Your task to perform on an android device: Go to accessibility settings Image 0: 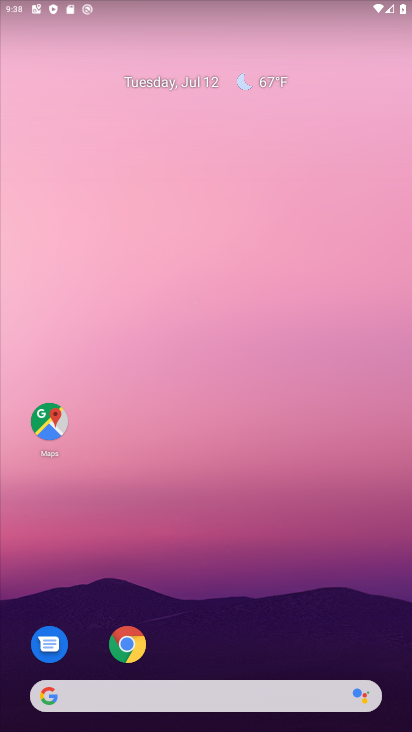
Step 0: drag from (208, 677) to (316, 196)
Your task to perform on an android device: Go to accessibility settings Image 1: 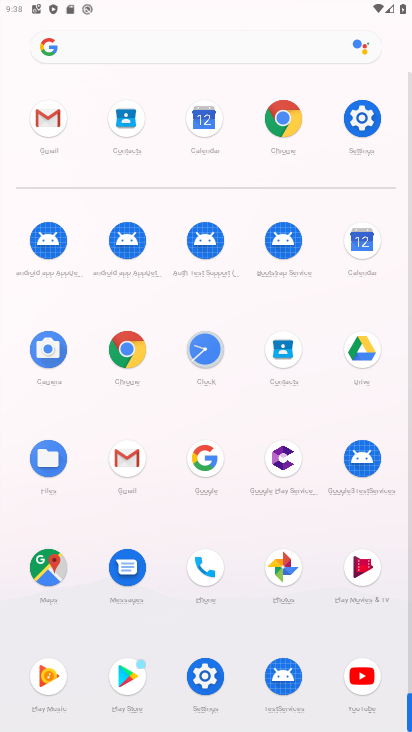
Step 1: click (359, 105)
Your task to perform on an android device: Go to accessibility settings Image 2: 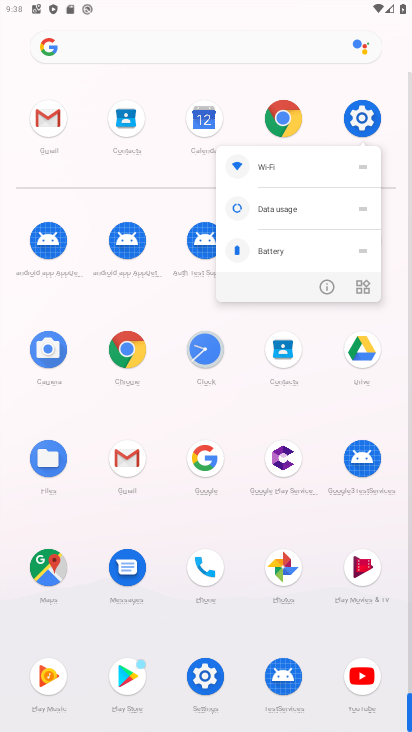
Step 2: click (325, 281)
Your task to perform on an android device: Go to accessibility settings Image 3: 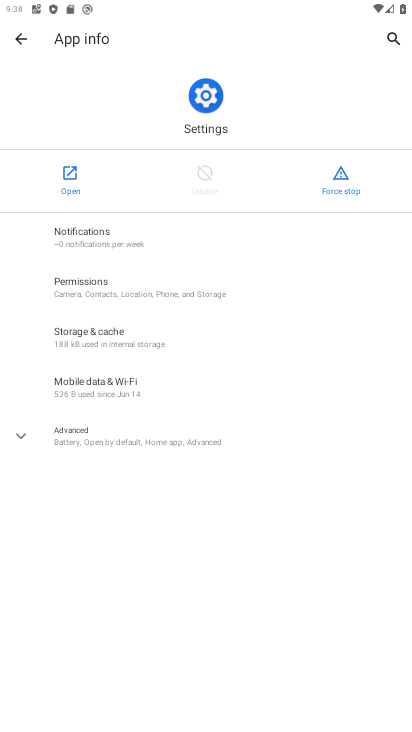
Step 3: click (59, 155)
Your task to perform on an android device: Go to accessibility settings Image 4: 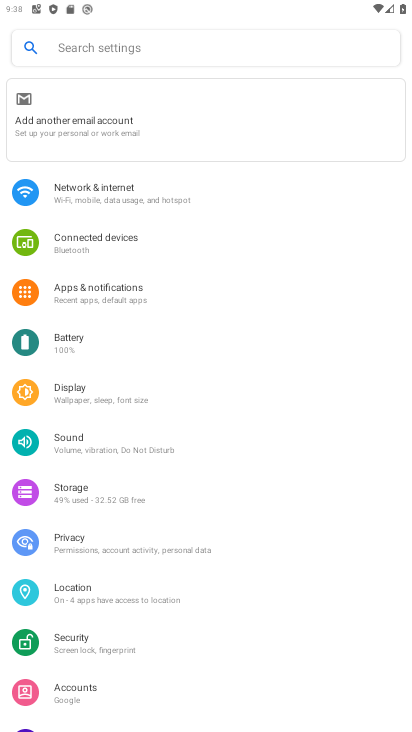
Step 4: drag from (156, 507) to (193, 120)
Your task to perform on an android device: Go to accessibility settings Image 5: 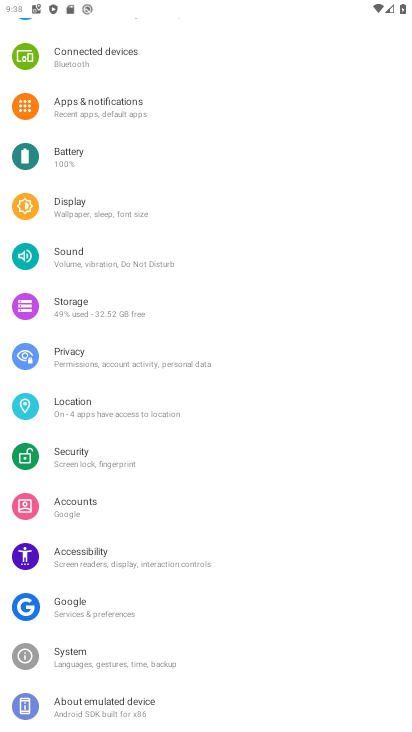
Step 5: click (113, 560)
Your task to perform on an android device: Go to accessibility settings Image 6: 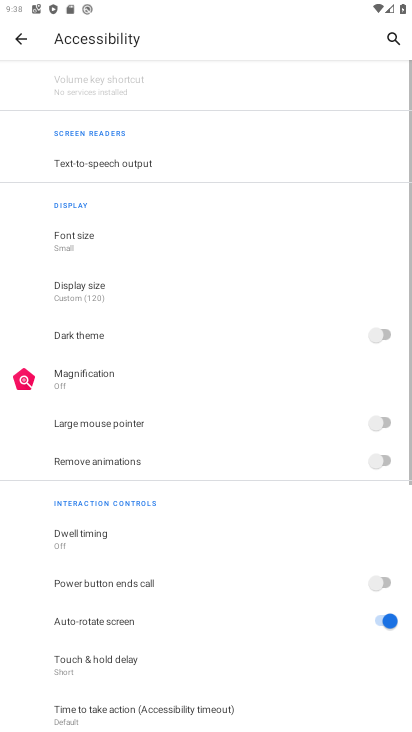
Step 6: task complete